Your task to perform on an android device: change the clock display to show seconds Image 0: 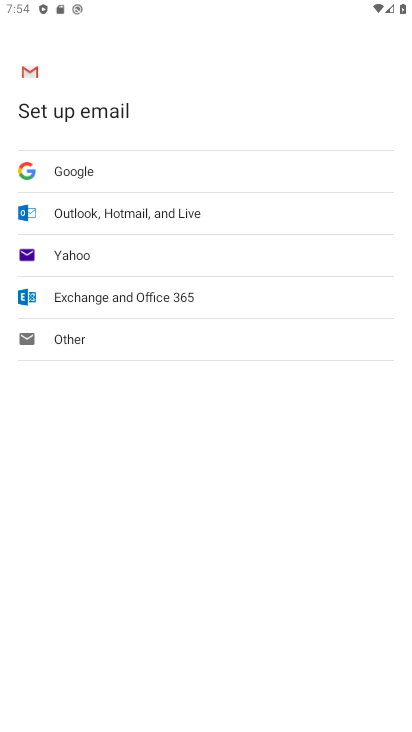
Step 0: press home button
Your task to perform on an android device: change the clock display to show seconds Image 1: 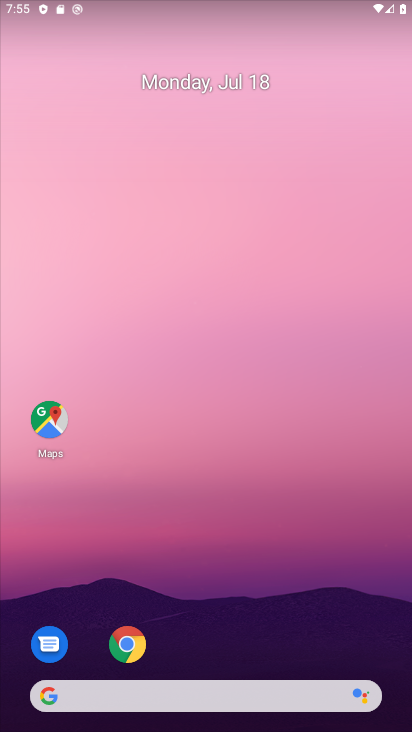
Step 1: drag from (216, 660) to (181, 19)
Your task to perform on an android device: change the clock display to show seconds Image 2: 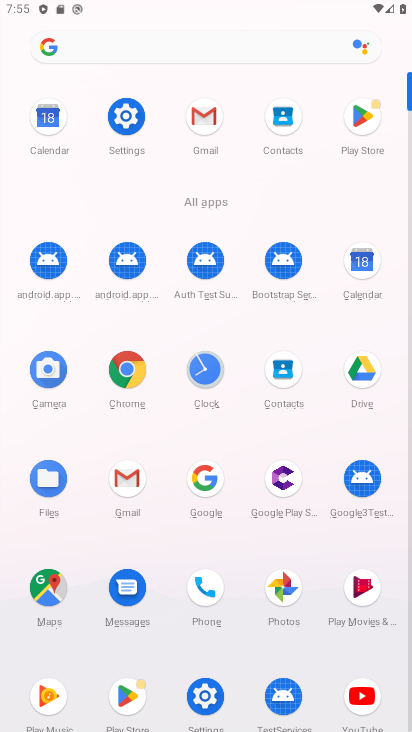
Step 2: click (200, 363)
Your task to perform on an android device: change the clock display to show seconds Image 3: 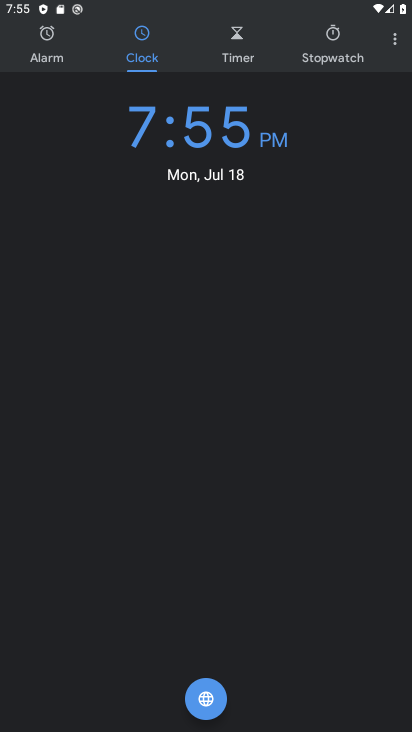
Step 3: click (391, 48)
Your task to perform on an android device: change the clock display to show seconds Image 4: 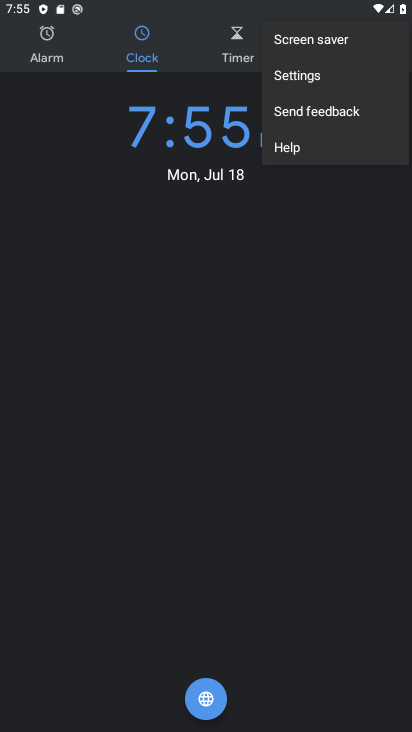
Step 4: click (324, 83)
Your task to perform on an android device: change the clock display to show seconds Image 5: 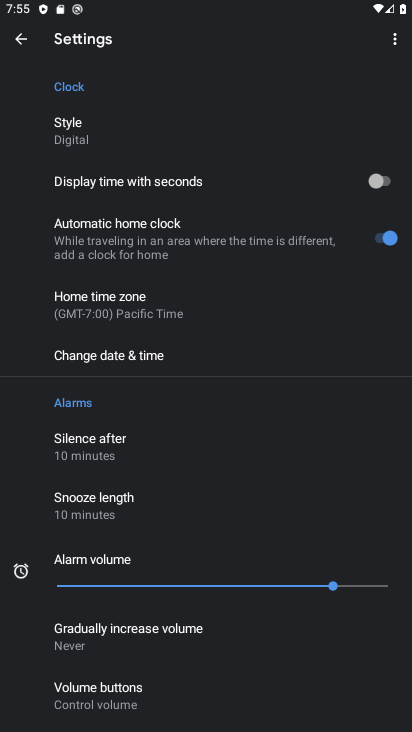
Step 5: click (377, 181)
Your task to perform on an android device: change the clock display to show seconds Image 6: 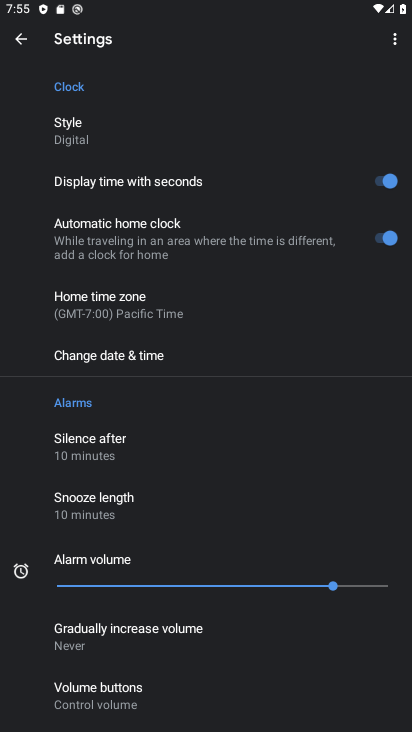
Step 6: task complete